Your task to perform on an android device: Open the phone app and click the voicemail tab. Image 0: 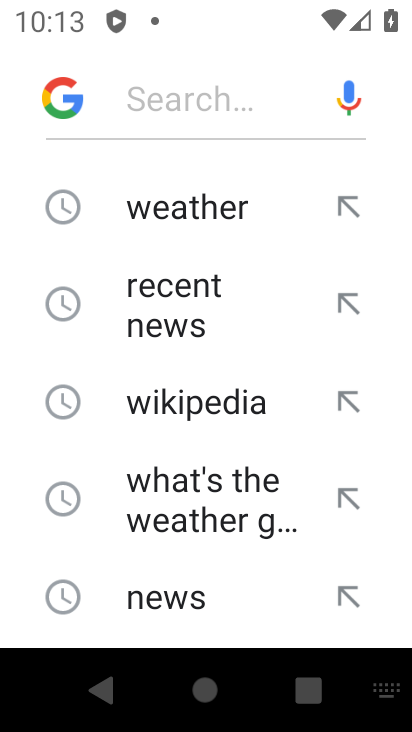
Step 0: press home button
Your task to perform on an android device: Open the phone app and click the voicemail tab. Image 1: 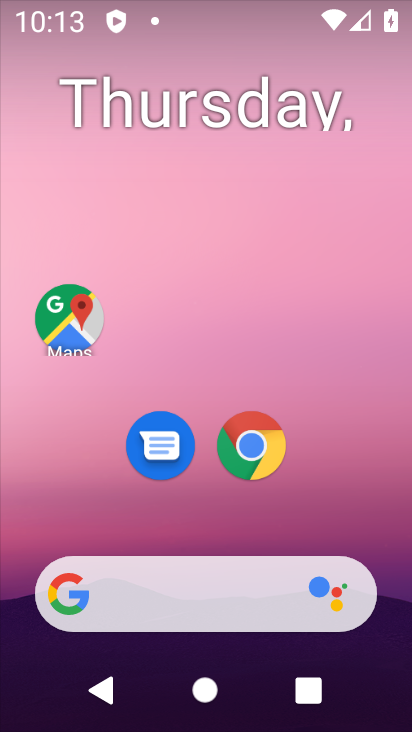
Step 1: drag from (244, 727) to (262, 137)
Your task to perform on an android device: Open the phone app and click the voicemail tab. Image 2: 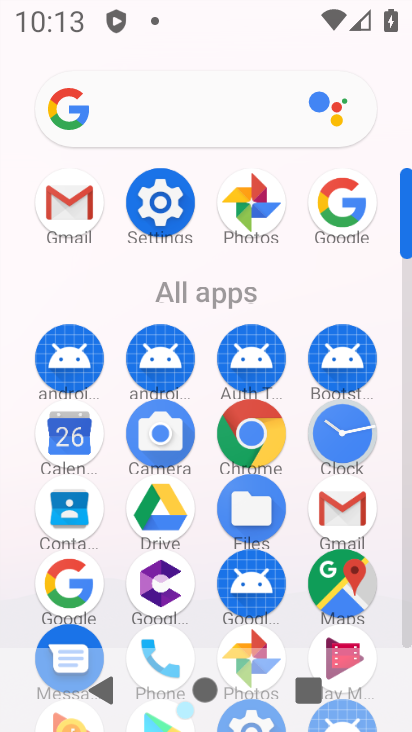
Step 2: click (158, 640)
Your task to perform on an android device: Open the phone app and click the voicemail tab. Image 3: 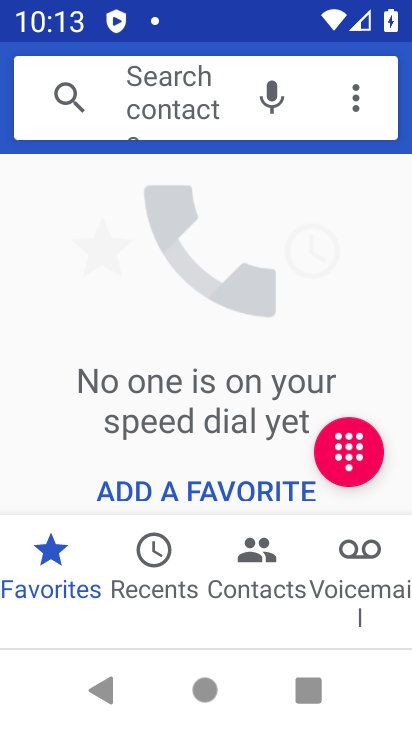
Step 3: click (363, 568)
Your task to perform on an android device: Open the phone app and click the voicemail tab. Image 4: 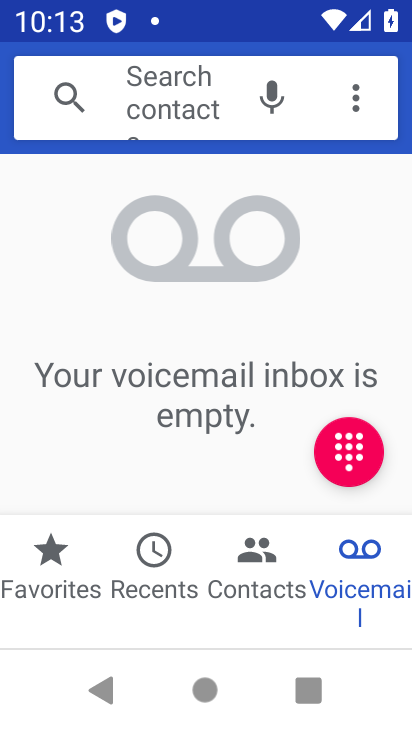
Step 4: task complete